Your task to perform on an android device: manage bookmarks in the chrome app Image 0: 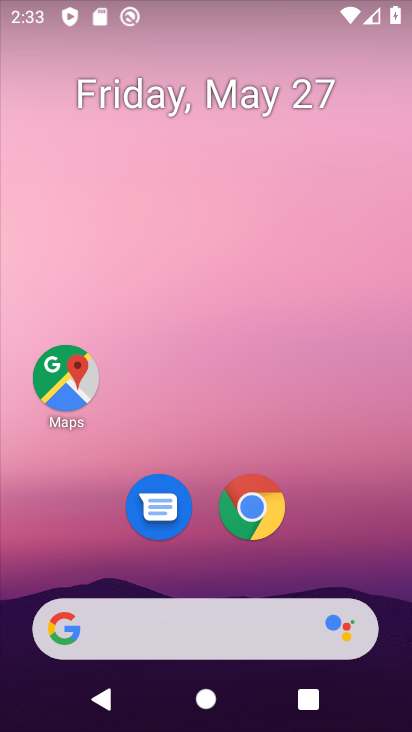
Step 0: drag from (350, 488) to (341, 179)
Your task to perform on an android device: manage bookmarks in the chrome app Image 1: 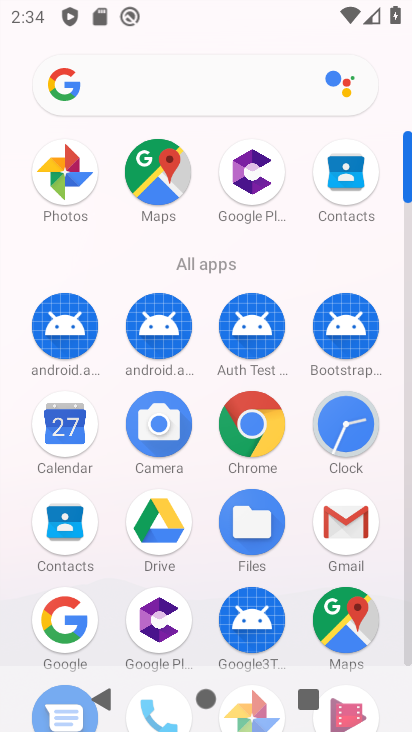
Step 1: click (263, 421)
Your task to perform on an android device: manage bookmarks in the chrome app Image 2: 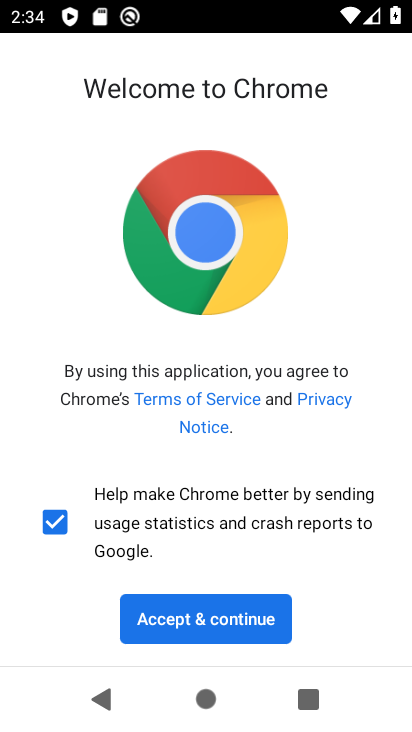
Step 2: click (224, 628)
Your task to perform on an android device: manage bookmarks in the chrome app Image 3: 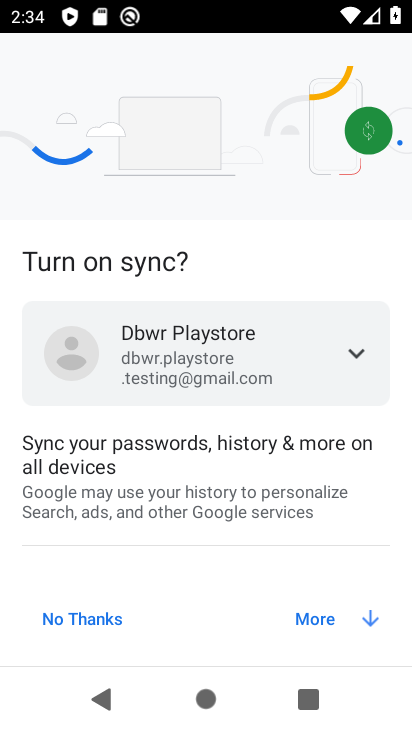
Step 3: click (311, 621)
Your task to perform on an android device: manage bookmarks in the chrome app Image 4: 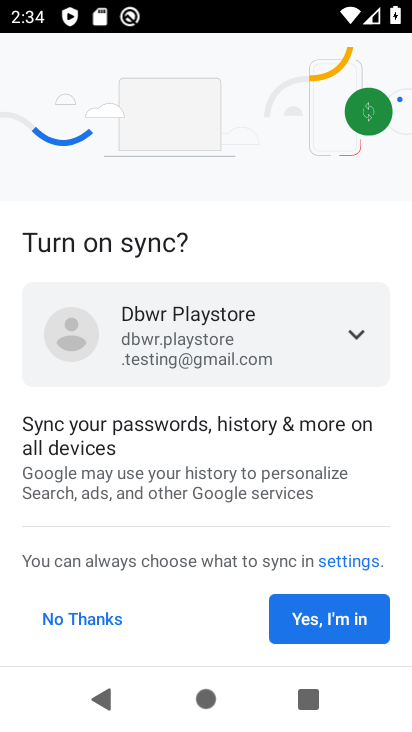
Step 4: click (331, 621)
Your task to perform on an android device: manage bookmarks in the chrome app Image 5: 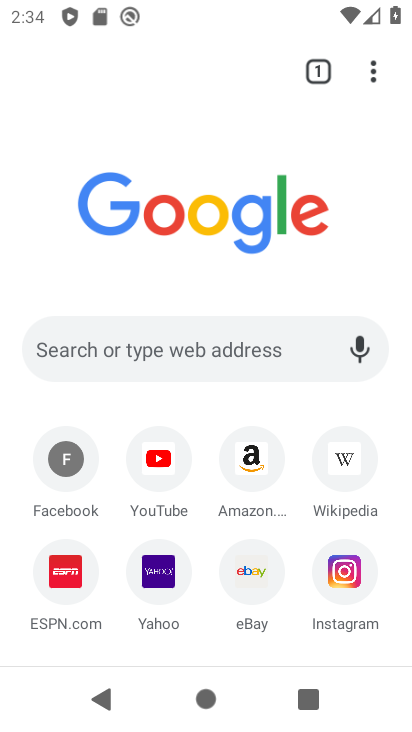
Step 5: task complete